Your task to perform on an android device: allow cookies in the chrome app Image 0: 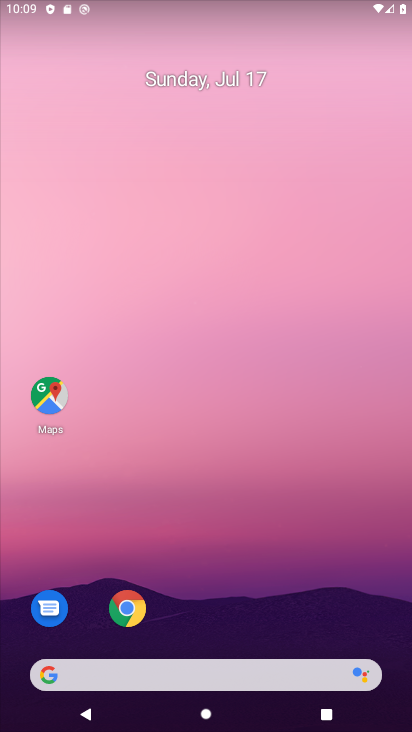
Step 0: click (127, 607)
Your task to perform on an android device: allow cookies in the chrome app Image 1: 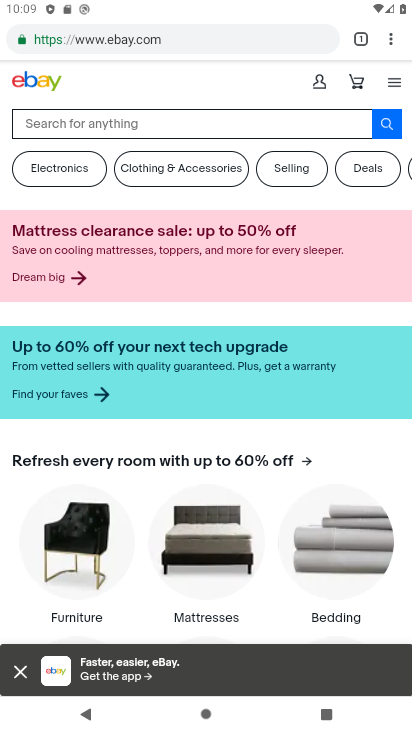
Step 1: click (387, 40)
Your task to perform on an android device: allow cookies in the chrome app Image 2: 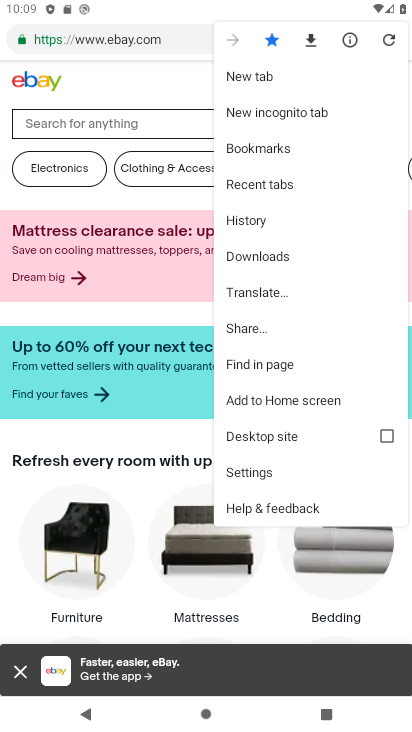
Step 2: click (251, 472)
Your task to perform on an android device: allow cookies in the chrome app Image 3: 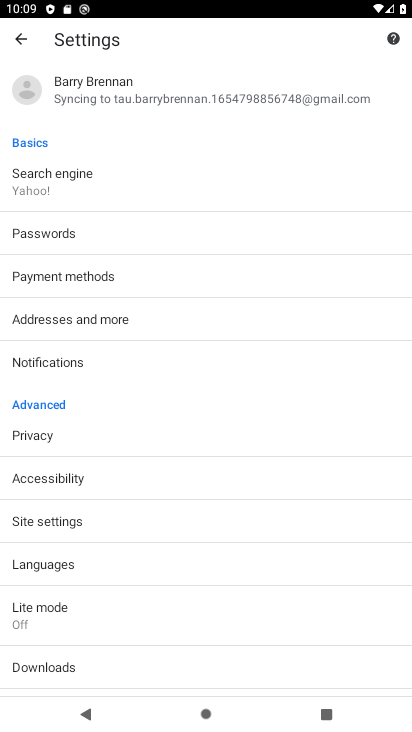
Step 3: click (49, 526)
Your task to perform on an android device: allow cookies in the chrome app Image 4: 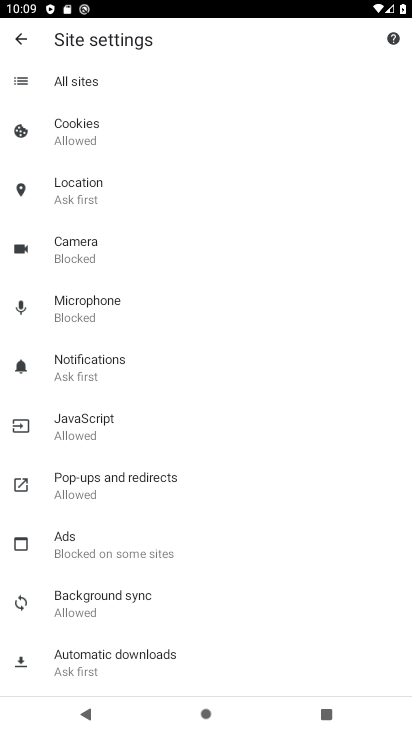
Step 4: click (121, 127)
Your task to perform on an android device: allow cookies in the chrome app Image 5: 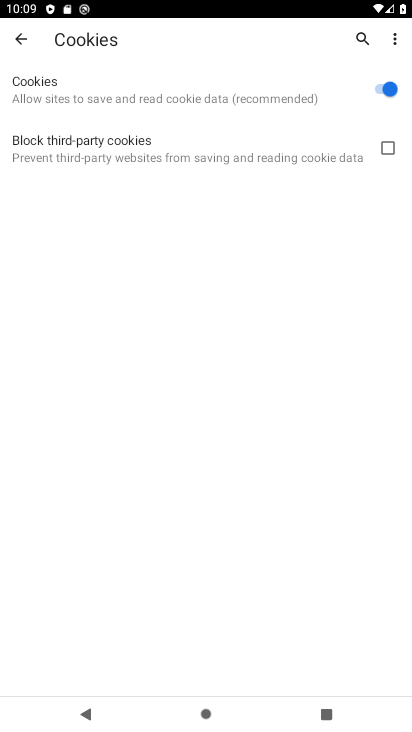
Step 5: task complete